Your task to perform on an android device: Open notification settings Image 0: 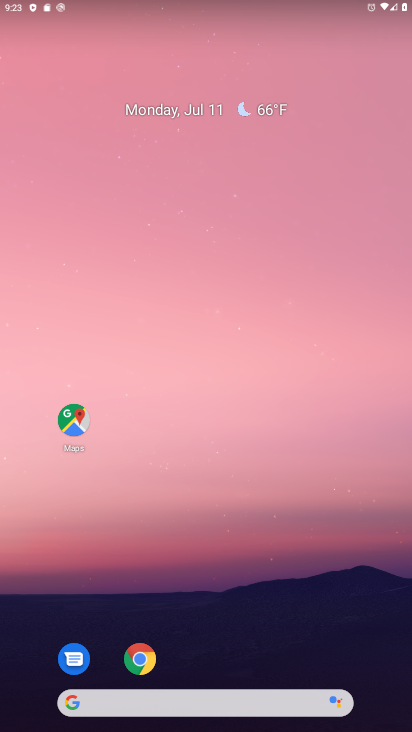
Step 0: drag from (364, 647) to (355, 113)
Your task to perform on an android device: Open notification settings Image 1: 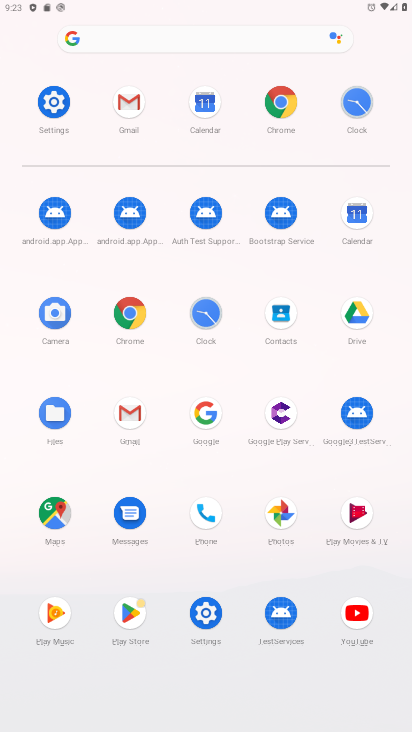
Step 1: click (51, 108)
Your task to perform on an android device: Open notification settings Image 2: 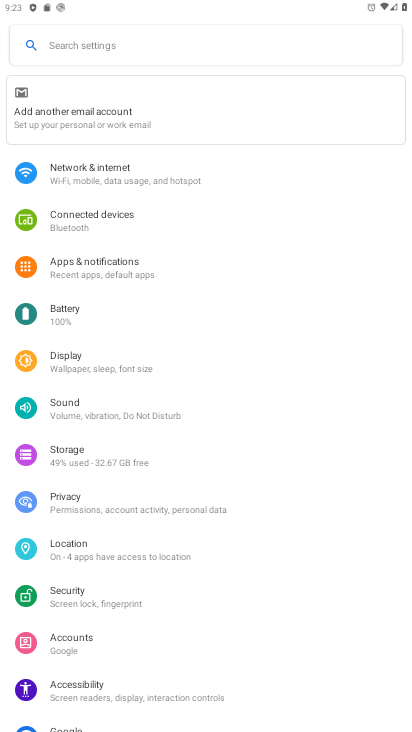
Step 2: drag from (289, 429) to (279, 300)
Your task to perform on an android device: Open notification settings Image 3: 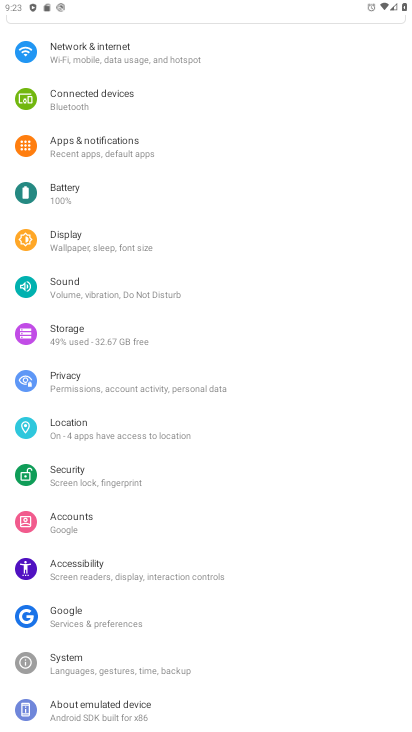
Step 3: drag from (299, 402) to (299, 296)
Your task to perform on an android device: Open notification settings Image 4: 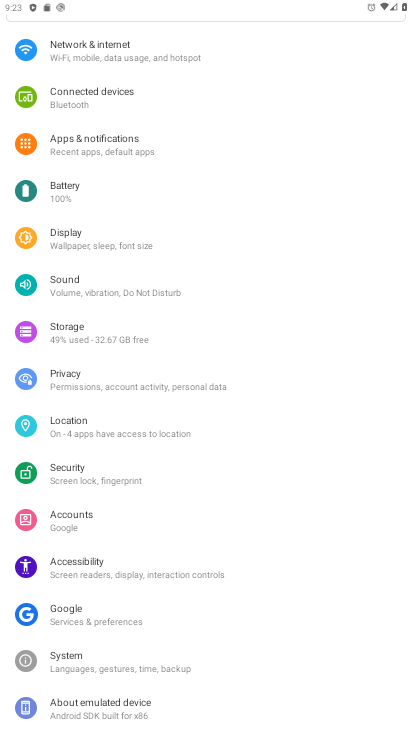
Step 4: drag from (281, 177) to (298, 395)
Your task to perform on an android device: Open notification settings Image 5: 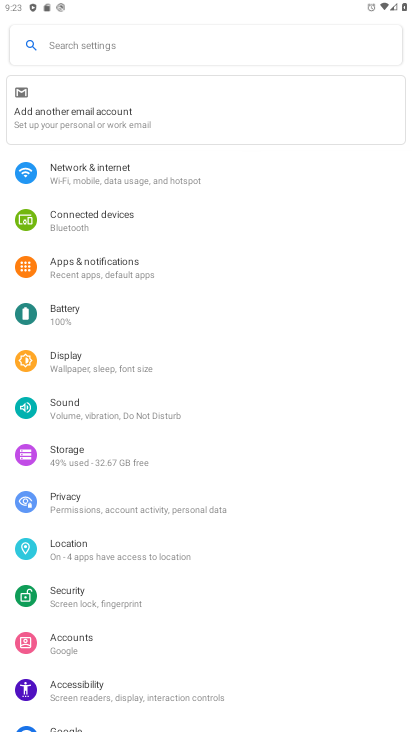
Step 5: click (138, 281)
Your task to perform on an android device: Open notification settings Image 6: 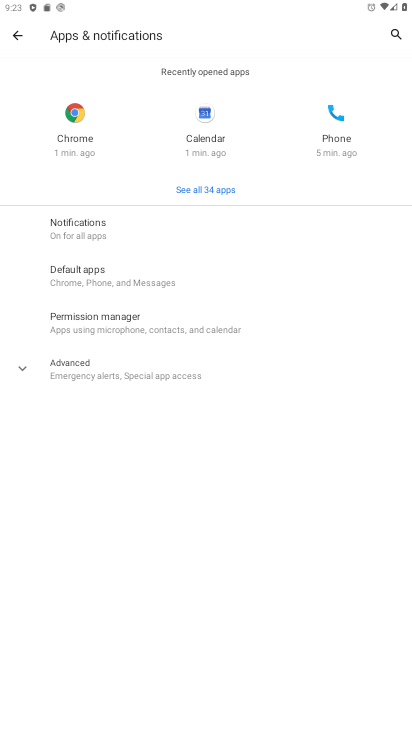
Step 6: click (100, 238)
Your task to perform on an android device: Open notification settings Image 7: 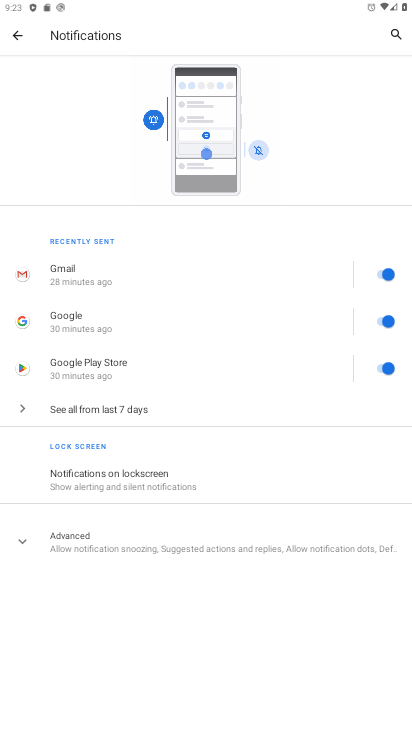
Step 7: task complete